Your task to perform on an android device: Open the web browser Image 0: 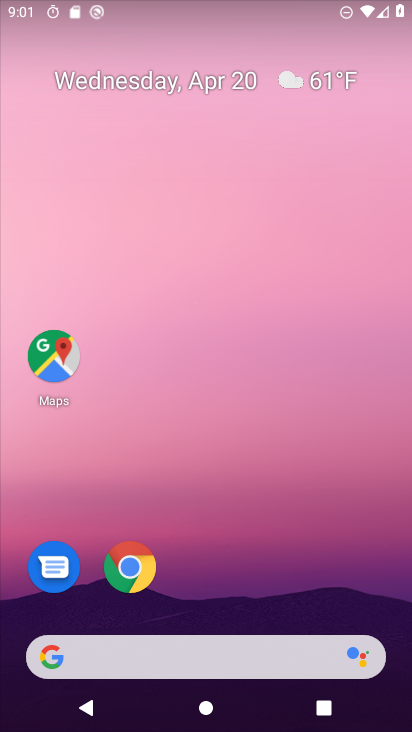
Step 0: click (125, 578)
Your task to perform on an android device: Open the web browser Image 1: 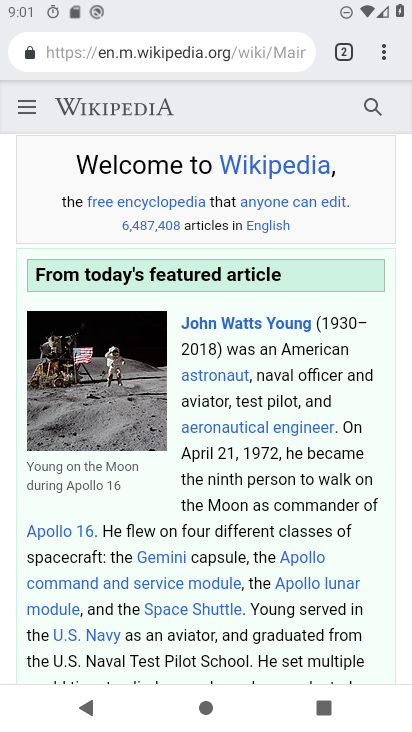
Step 1: task complete